Your task to perform on an android device: Open Reddit.com Image 0: 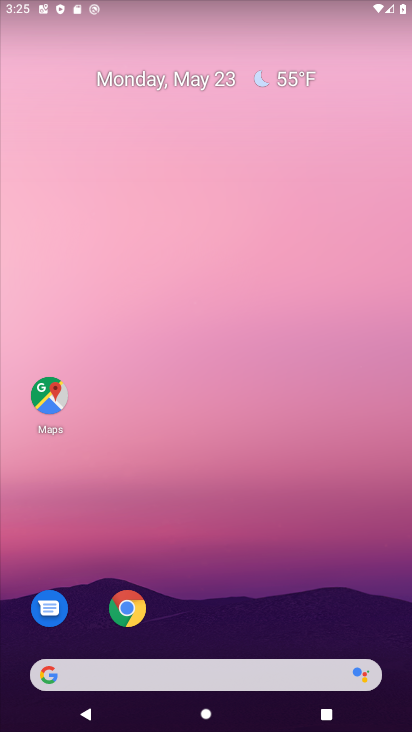
Step 0: click (140, 612)
Your task to perform on an android device: Open Reddit.com Image 1: 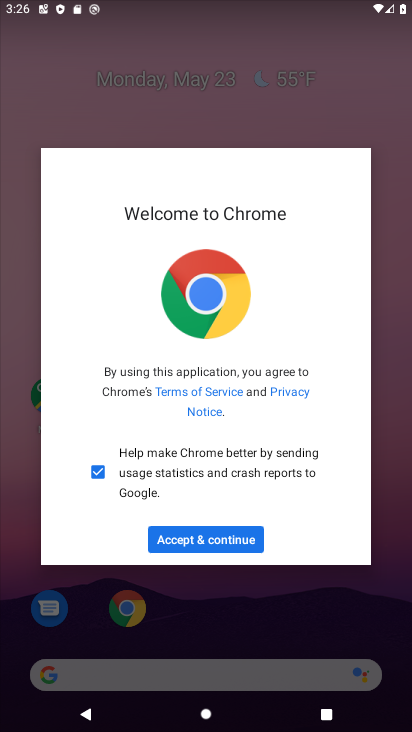
Step 1: click (194, 547)
Your task to perform on an android device: Open Reddit.com Image 2: 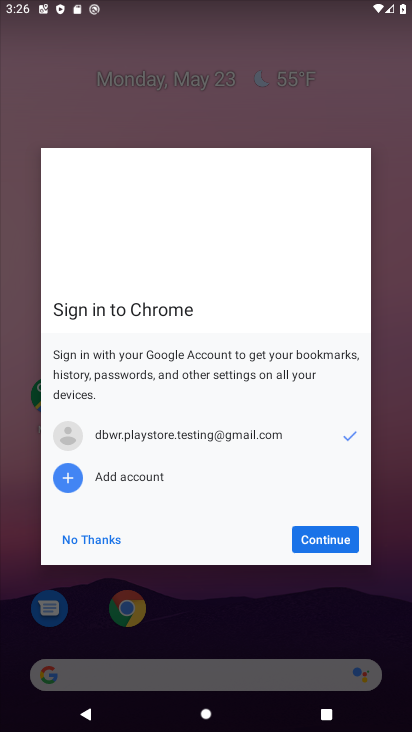
Step 2: click (344, 544)
Your task to perform on an android device: Open Reddit.com Image 3: 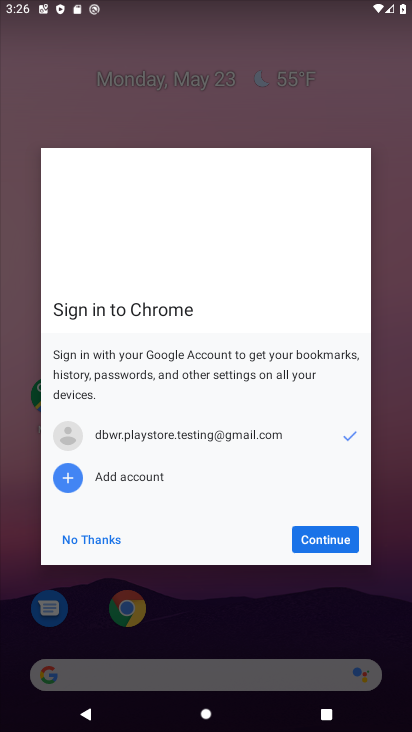
Step 3: click (342, 542)
Your task to perform on an android device: Open Reddit.com Image 4: 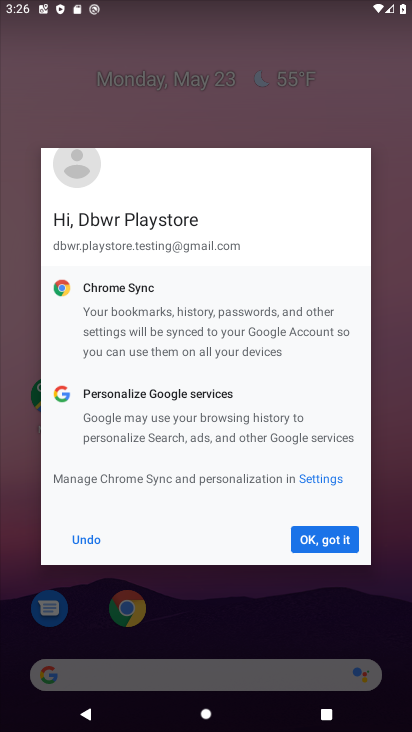
Step 4: click (342, 542)
Your task to perform on an android device: Open Reddit.com Image 5: 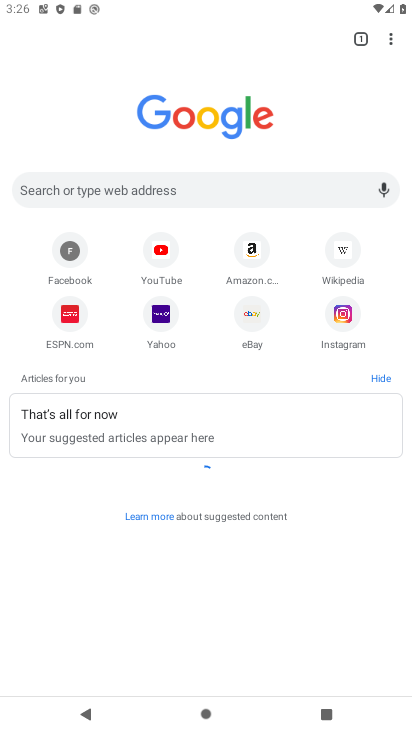
Step 5: click (128, 178)
Your task to perform on an android device: Open Reddit.com Image 6: 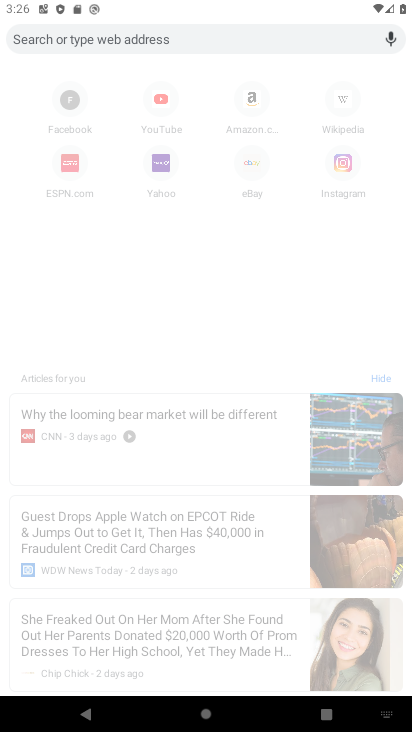
Step 6: type "Reddit.com"
Your task to perform on an android device: Open Reddit.com Image 7: 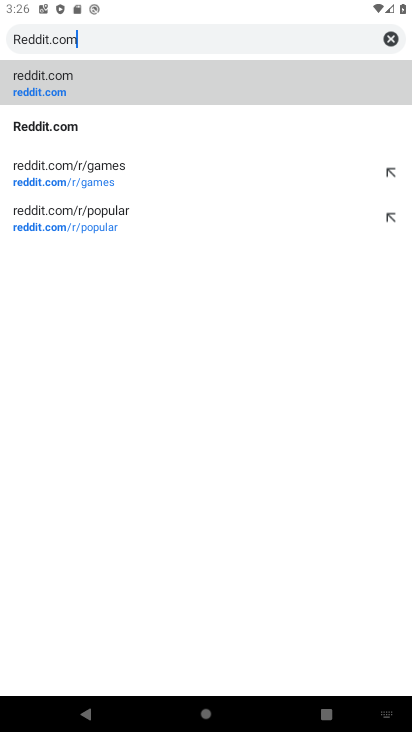
Step 7: click (132, 98)
Your task to perform on an android device: Open Reddit.com Image 8: 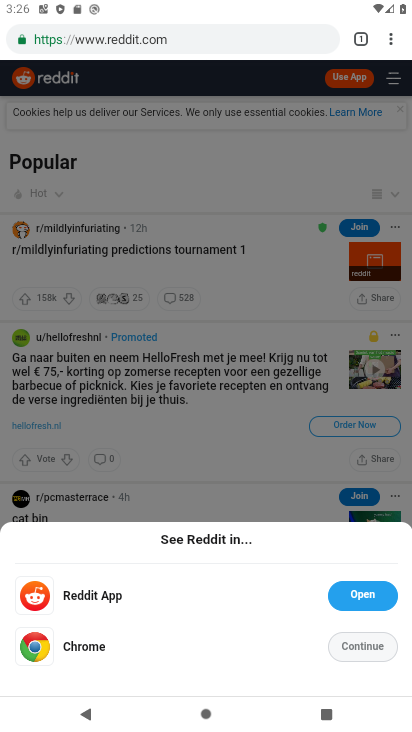
Step 8: task complete